Your task to perform on an android device: Check the settings for the Google Maps app Image 0: 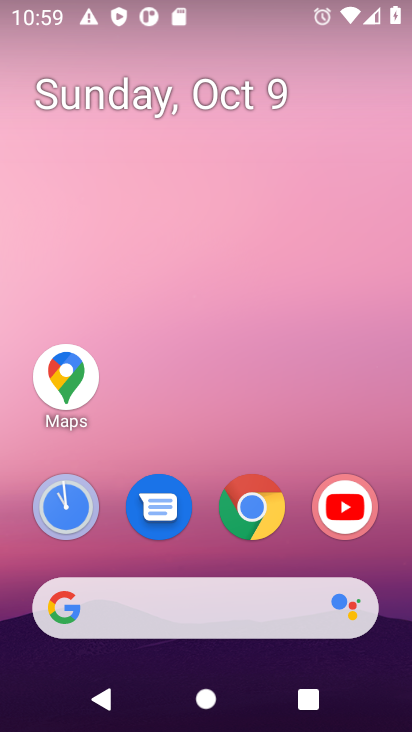
Step 0: drag from (339, 405) to (332, 50)
Your task to perform on an android device: Check the settings for the Google Maps app Image 1: 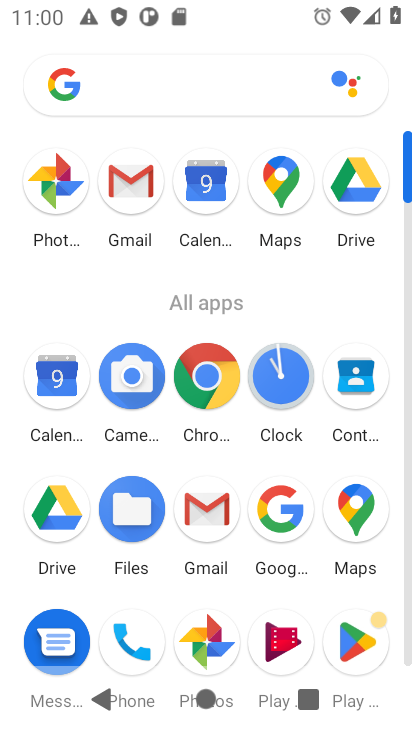
Step 1: click (361, 517)
Your task to perform on an android device: Check the settings for the Google Maps app Image 2: 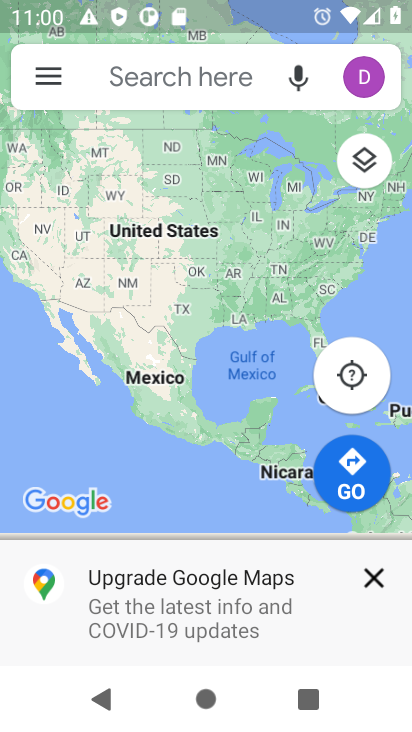
Step 2: click (51, 76)
Your task to perform on an android device: Check the settings for the Google Maps app Image 3: 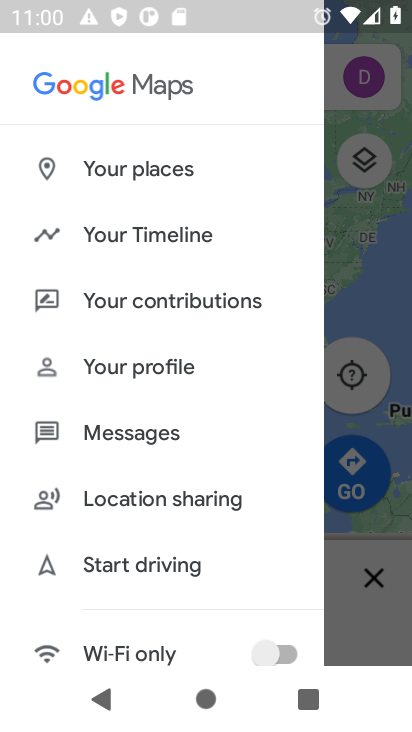
Step 3: drag from (267, 458) to (257, 198)
Your task to perform on an android device: Check the settings for the Google Maps app Image 4: 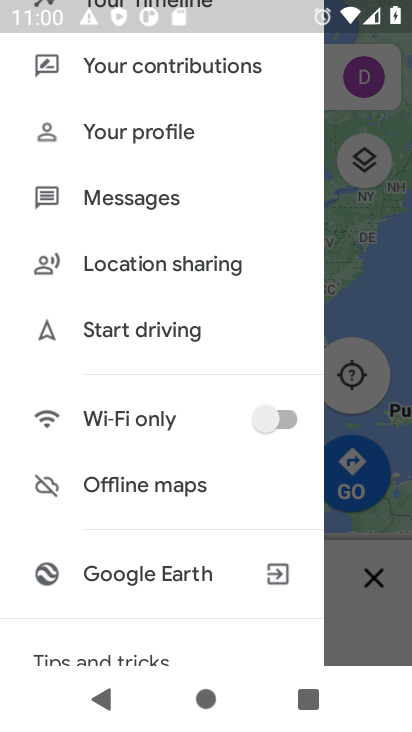
Step 4: drag from (221, 614) to (247, 226)
Your task to perform on an android device: Check the settings for the Google Maps app Image 5: 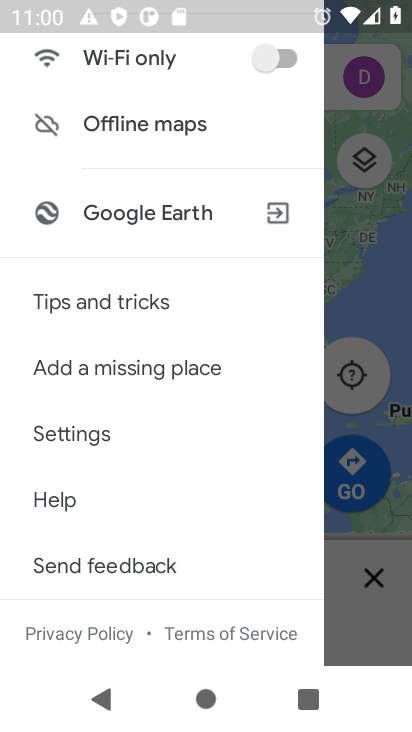
Step 5: click (92, 436)
Your task to perform on an android device: Check the settings for the Google Maps app Image 6: 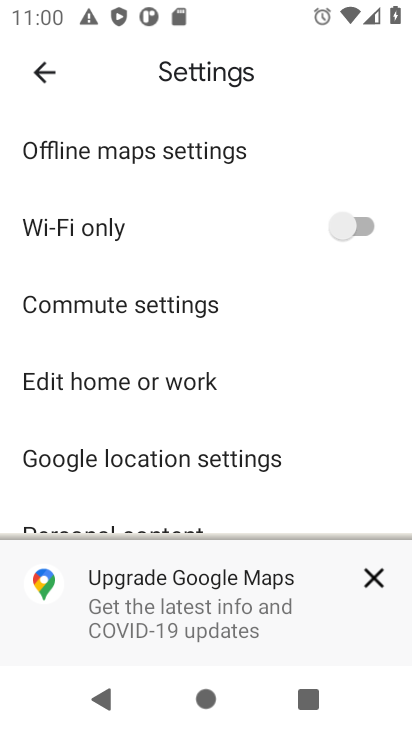
Step 6: click (382, 575)
Your task to perform on an android device: Check the settings for the Google Maps app Image 7: 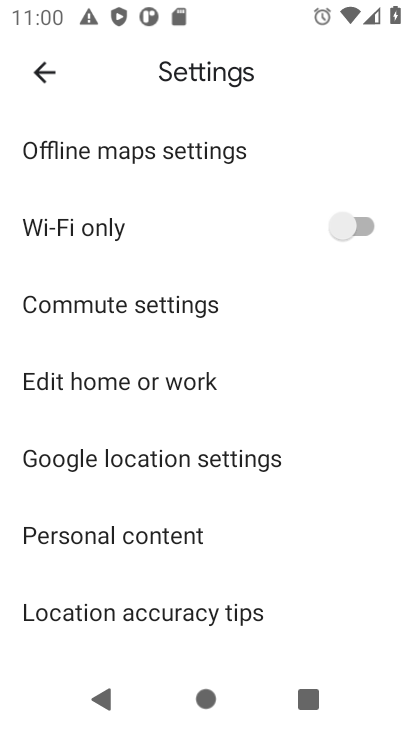
Step 7: task complete